Your task to perform on an android device: turn off data saver in the chrome app Image 0: 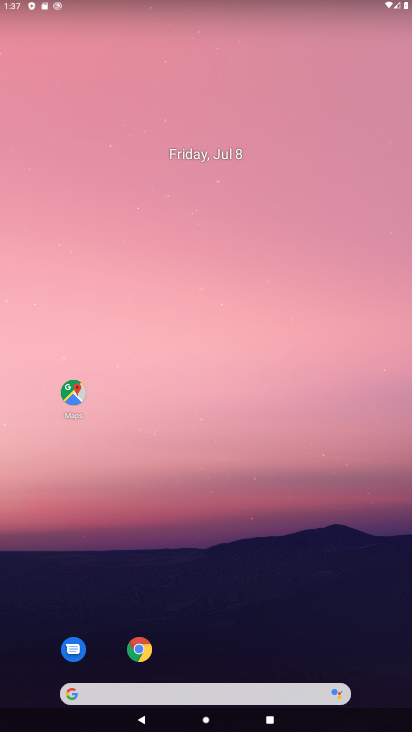
Step 0: drag from (250, 565) to (200, 168)
Your task to perform on an android device: turn off data saver in the chrome app Image 1: 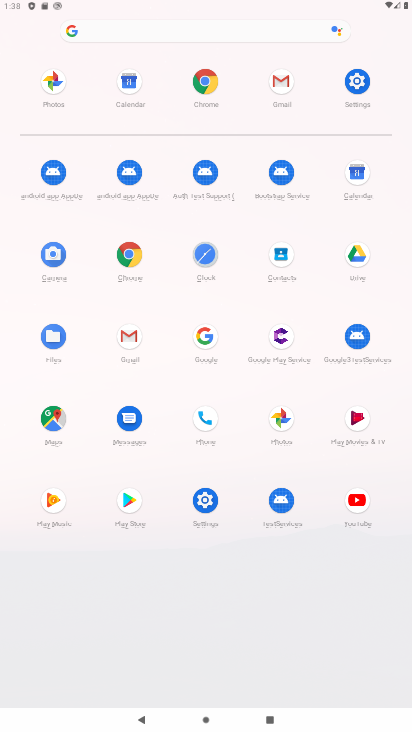
Step 1: click (199, 86)
Your task to perform on an android device: turn off data saver in the chrome app Image 2: 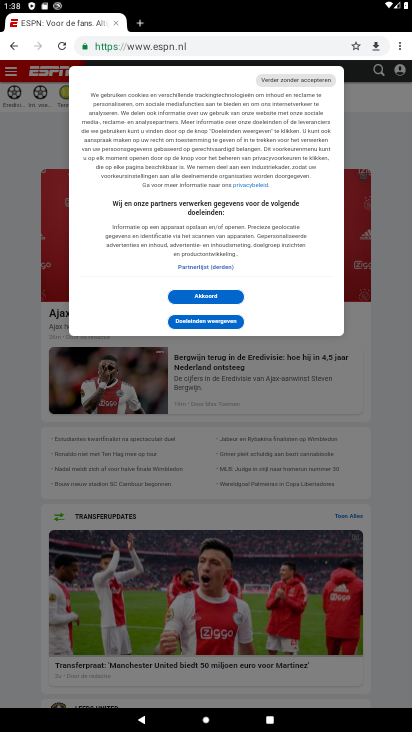
Step 2: drag from (399, 44) to (327, 305)
Your task to perform on an android device: turn off data saver in the chrome app Image 3: 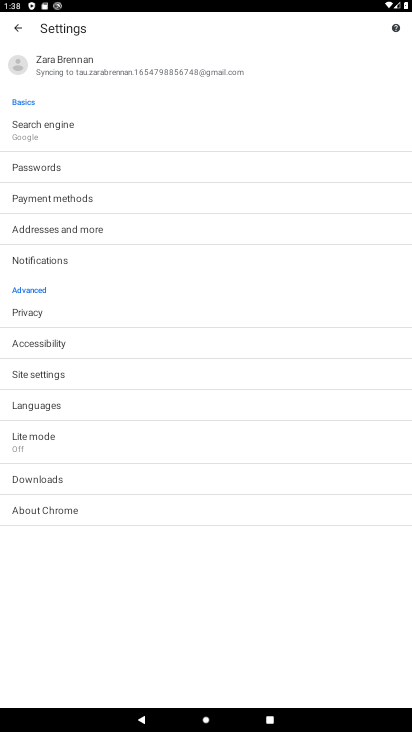
Step 3: click (68, 438)
Your task to perform on an android device: turn off data saver in the chrome app Image 4: 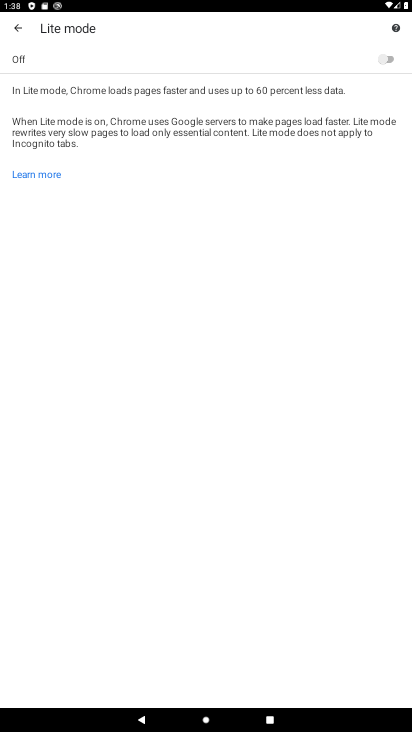
Step 4: task complete